Your task to perform on an android device: Search for Mexican restaurants on Maps Image 0: 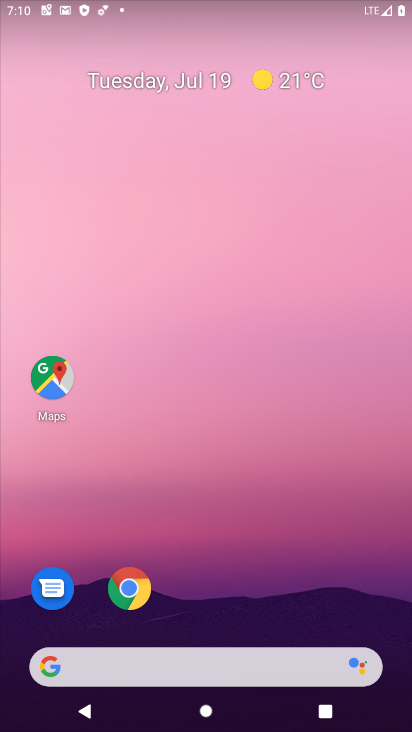
Step 0: drag from (241, 610) to (297, 240)
Your task to perform on an android device: Search for Mexican restaurants on Maps Image 1: 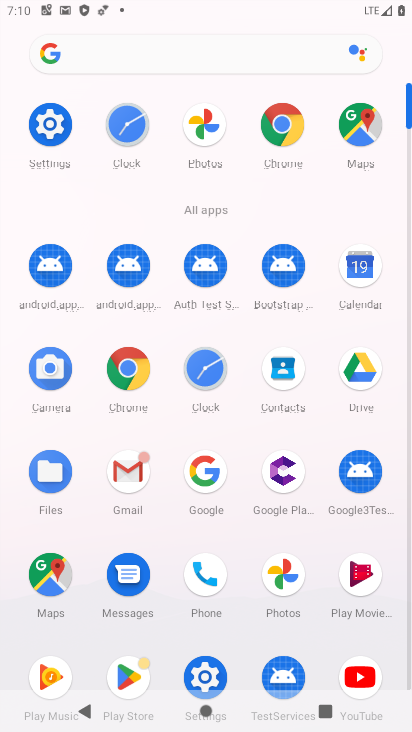
Step 1: click (47, 585)
Your task to perform on an android device: Search for Mexican restaurants on Maps Image 2: 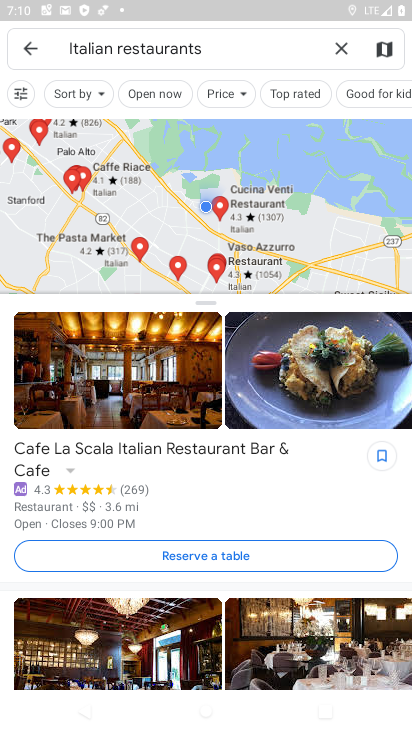
Step 2: click (337, 53)
Your task to perform on an android device: Search for Mexican restaurants on Maps Image 3: 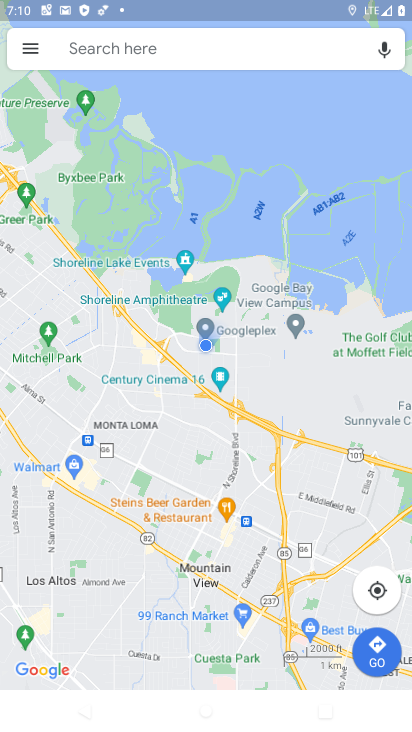
Step 3: click (205, 55)
Your task to perform on an android device: Search for Mexican restaurants on Maps Image 4: 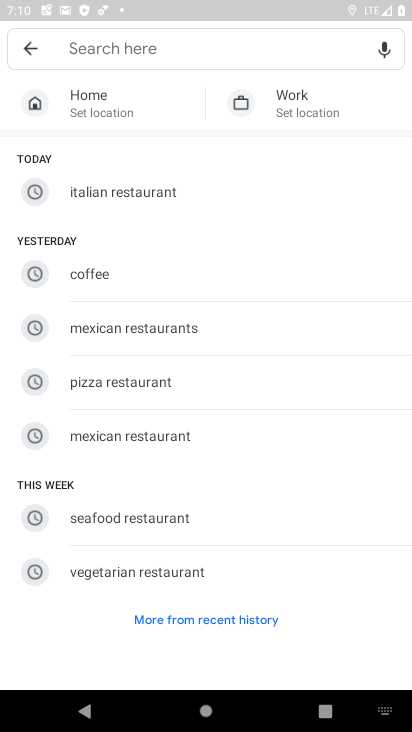
Step 4: click (165, 429)
Your task to perform on an android device: Search for Mexican restaurants on Maps Image 5: 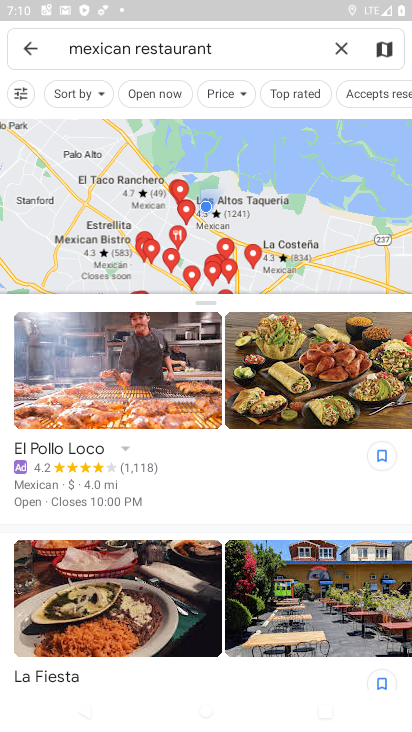
Step 5: task complete